Your task to perform on an android device: Open my contact list Image 0: 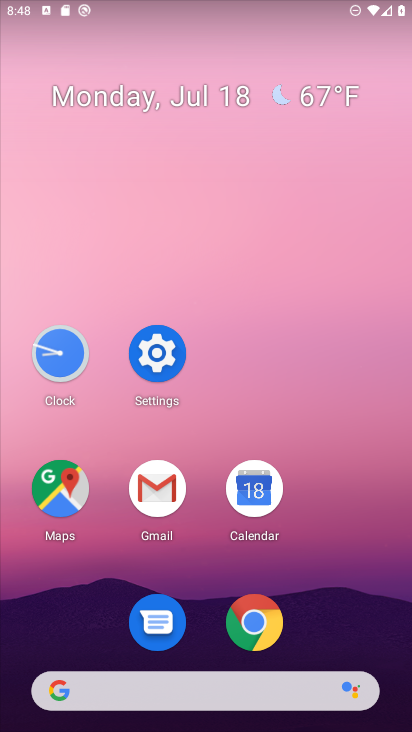
Step 0: drag from (399, 691) to (270, 90)
Your task to perform on an android device: Open my contact list Image 1: 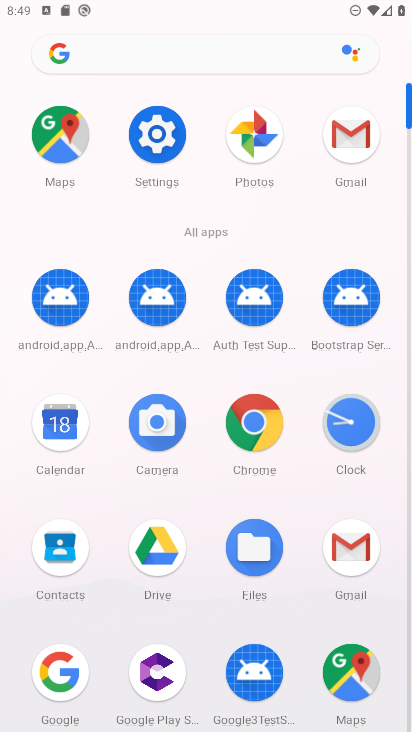
Step 1: click (57, 548)
Your task to perform on an android device: Open my contact list Image 2: 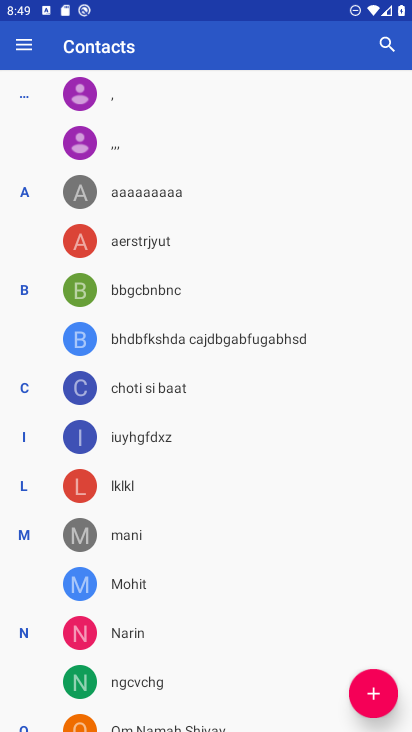
Step 2: click (365, 699)
Your task to perform on an android device: Open my contact list Image 3: 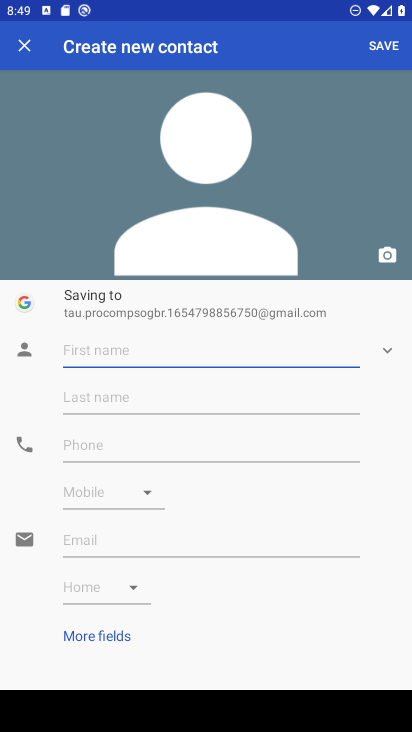
Step 3: click (16, 47)
Your task to perform on an android device: Open my contact list Image 4: 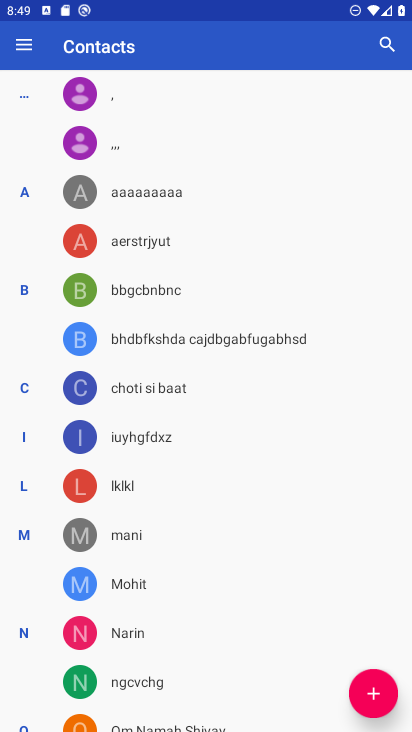
Step 4: task complete